Your task to perform on an android device: Open maps Image 0: 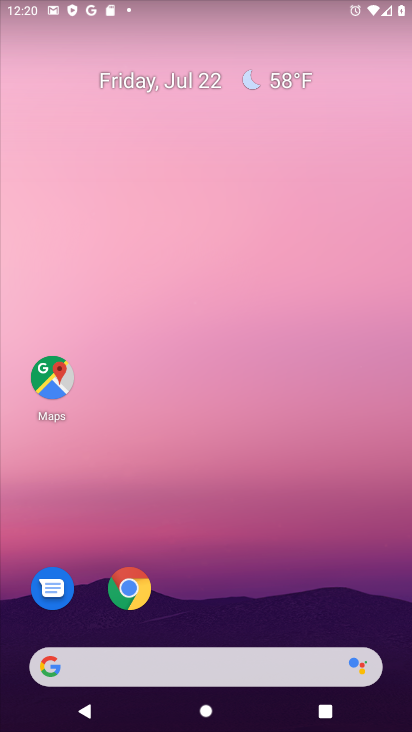
Step 0: click (55, 378)
Your task to perform on an android device: Open maps Image 1: 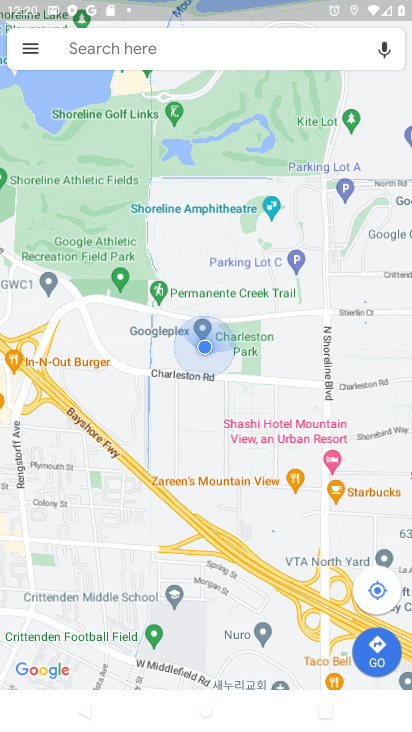
Step 1: task complete